Your task to perform on an android device: check the backup settings in the google photos Image 0: 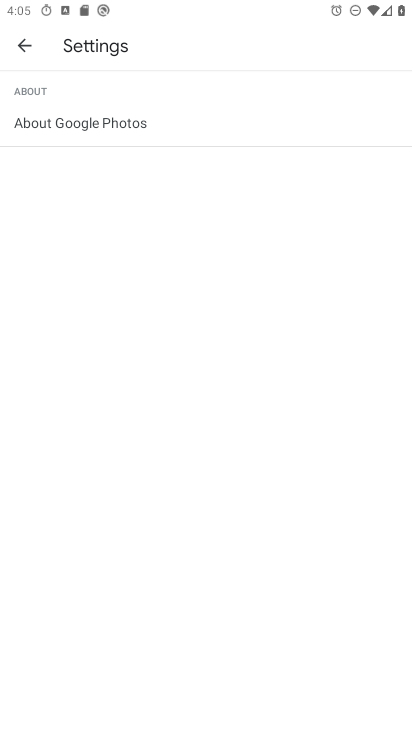
Step 0: press home button
Your task to perform on an android device: check the backup settings in the google photos Image 1: 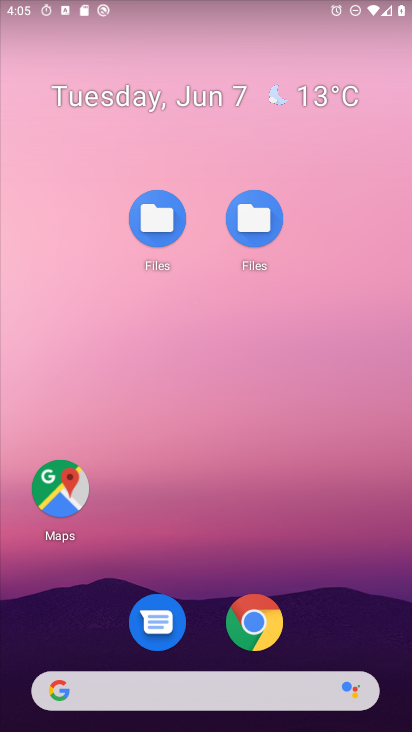
Step 1: click (251, 625)
Your task to perform on an android device: check the backup settings in the google photos Image 2: 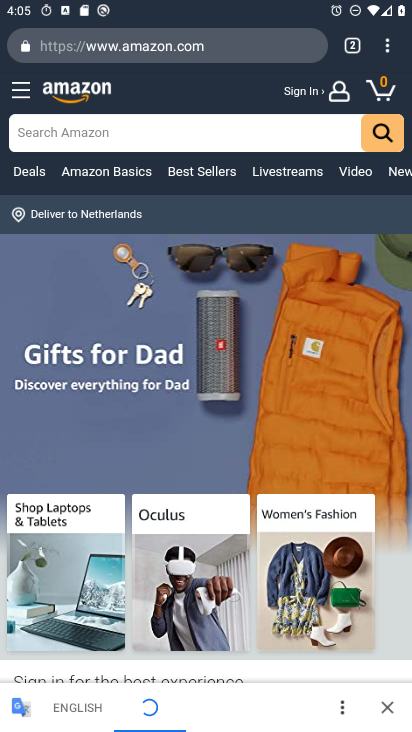
Step 2: click (380, 35)
Your task to perform on an android device: check the backup settings in the google photos Image 3: 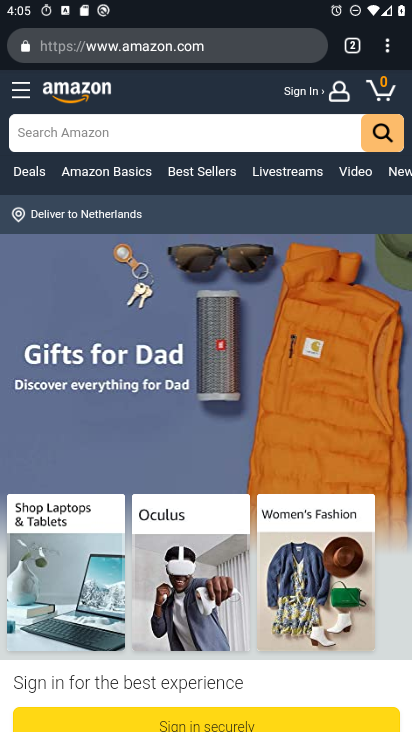
Step 3: click (380, 35)
Your task to perform on an android device: check the backup settings in the google photos Image 4: 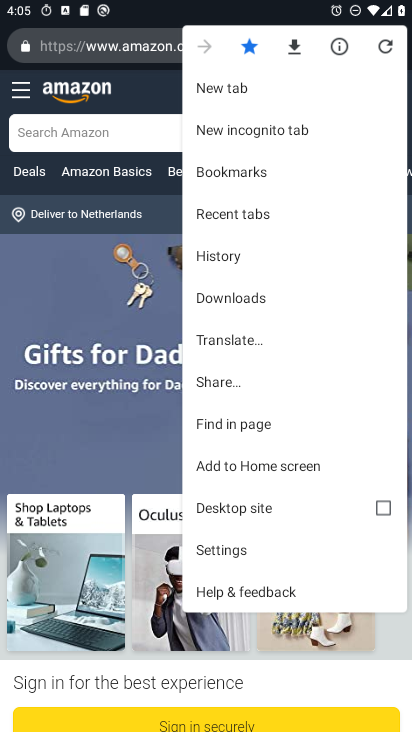
Step 4: click (243, 539)
Your task to perform on an android device: check the backup settings in the google photos Image 5: 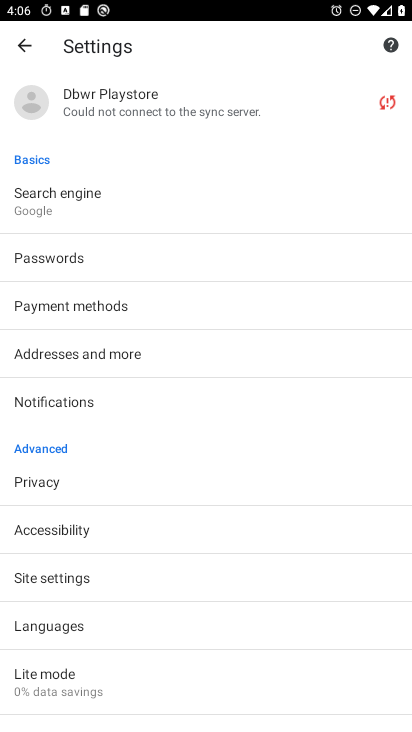
Step 5: drag from (127, 690) to (153, 496)
Your task to perform on an android device: check the backup settings in the google photos Image 6: 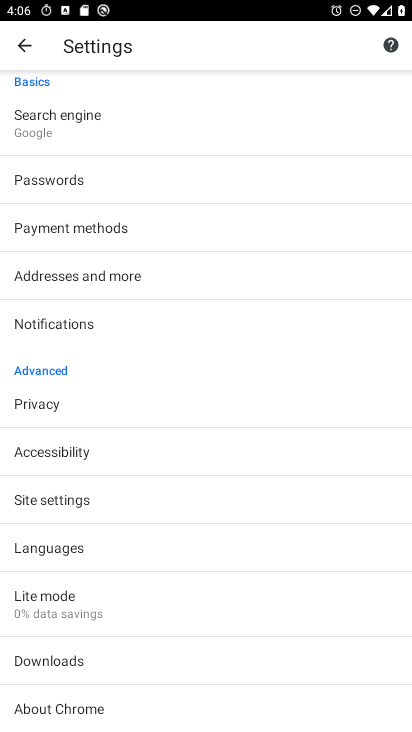
Step 6: click (119, 484)
Your task to perform on an android device: check the backup settings in the google photos Image 7: 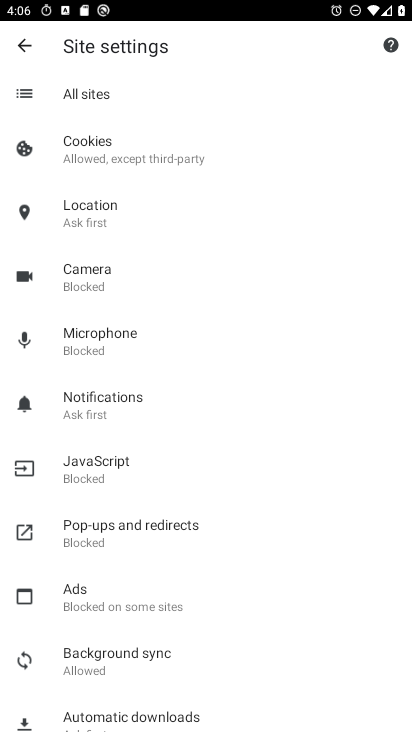
Step 7: click (147, 657)
Your task to perform on an android device: check the backup settings in the google photos Image 8: 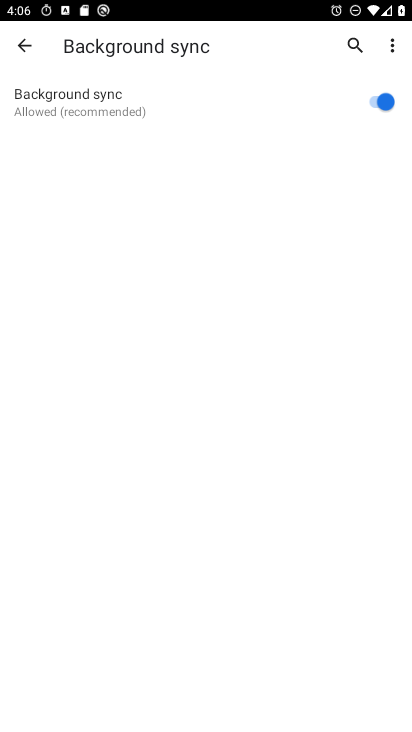
Step 8: task complete